Your task to perform on an android device: toggle priority inbox in the gmail app Image 0: 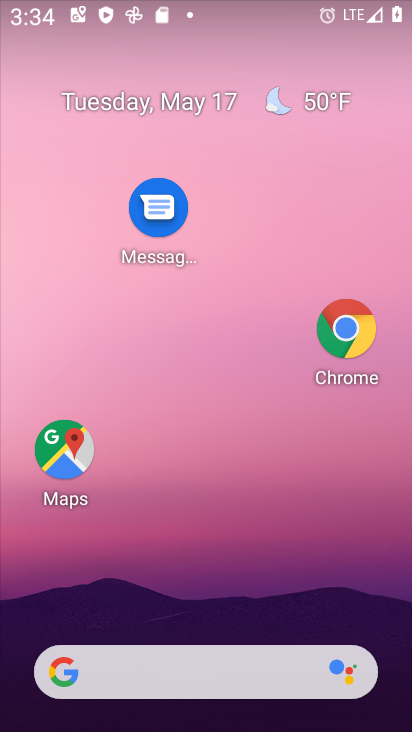
Step 0: drag from (245, 541) to (341, 10)
Your task to perform on an android device: toggle priority inbox in the gmail app Image 1: 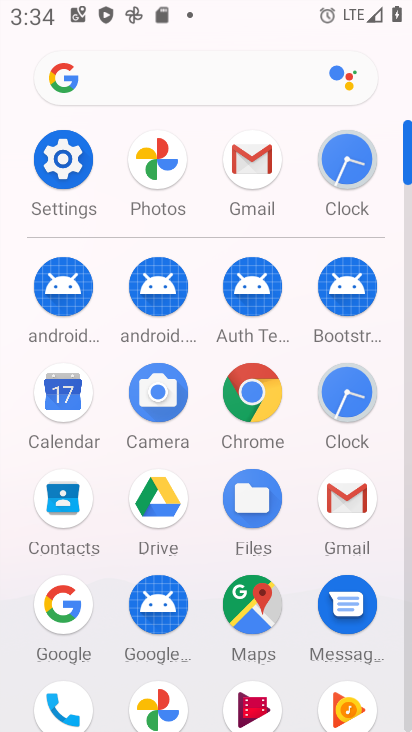
Step 1: click (255, 204)
Your task to perform on an android device: toggle priority inbox in the gmail app Image 2: 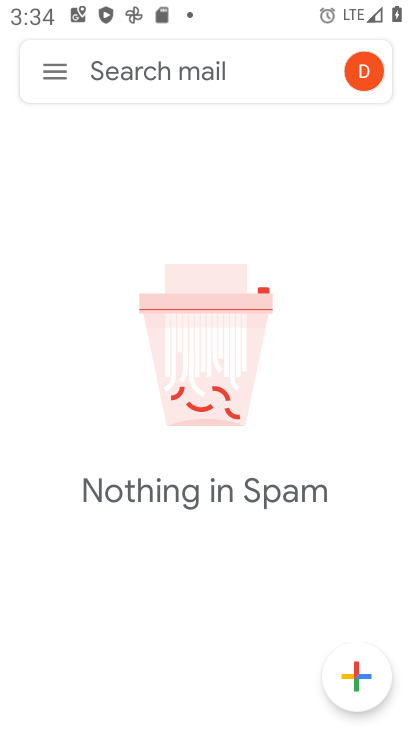
Step 2: click (62, 80)
Your task to perform on an android device: toggle priority inbox in the gmail app Image 3: 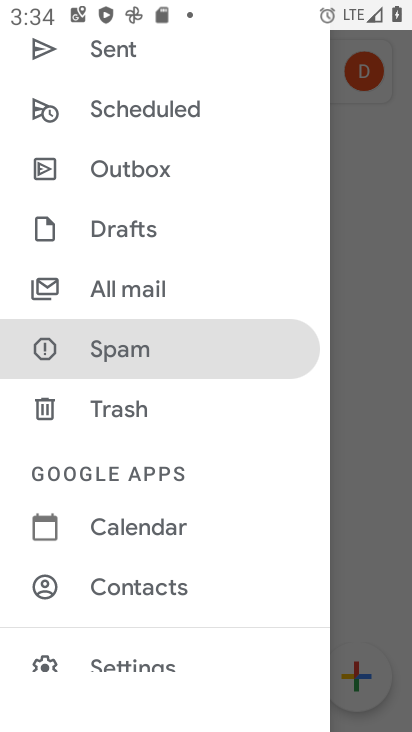
Step 3: drag from (144, 236) to (126, 535)
Your task to perform on an android device: toggle priority inbox in the gmail app Image 4: 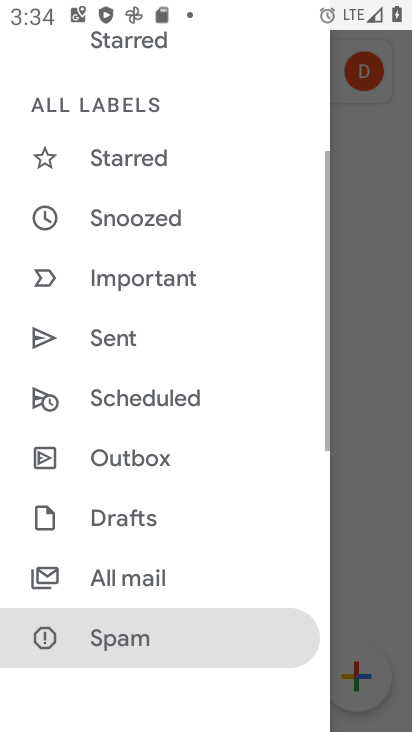
Step 4: drag from (126, 535) to (204, 167)
Your task to perform on an android device: toggle priority inbox in the gmail app Image 5: 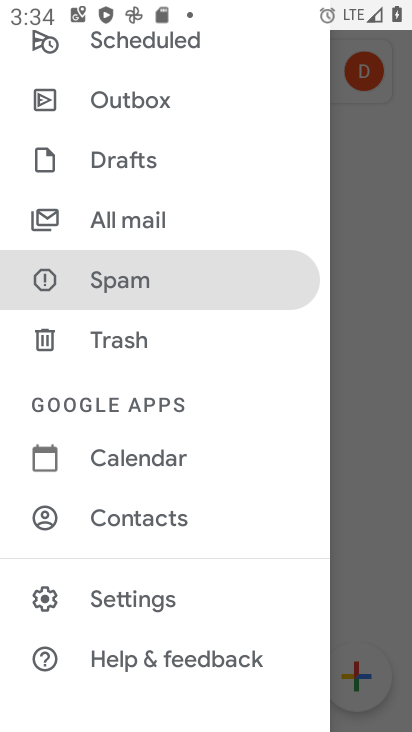
Step 5: click (126, 578)
Your task to perform on an android device: toggle priority inbox in the gmail app Image 6: 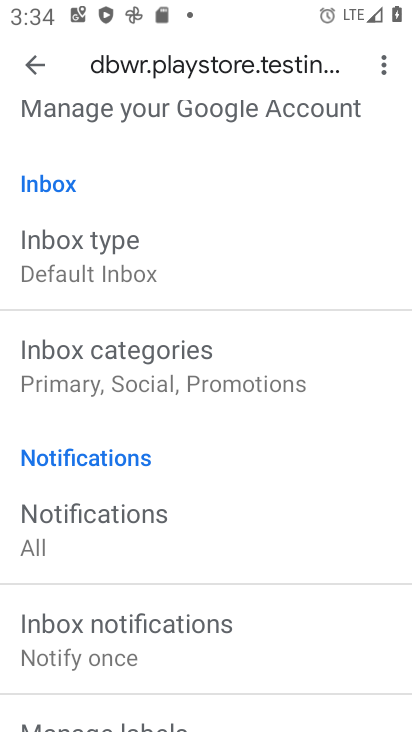
Step 6: click (156, 288)
Your task to perform on an android device: toggle priority inbox in the gmail app Image 7: 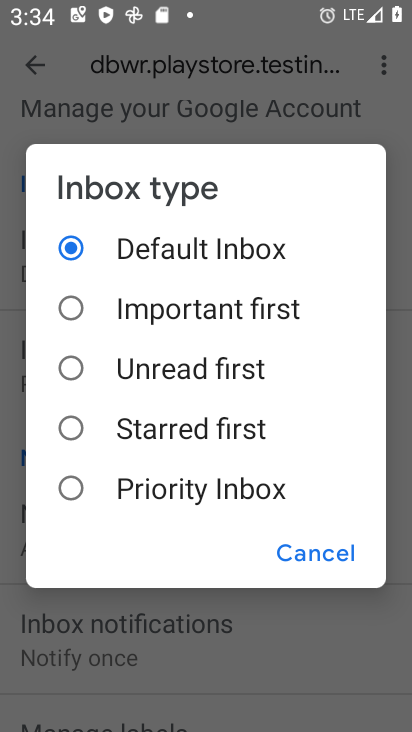
Step 7: click (180, 505)
Your task to perform on an android device: toggle priority inbox in the gmail app Image 8: 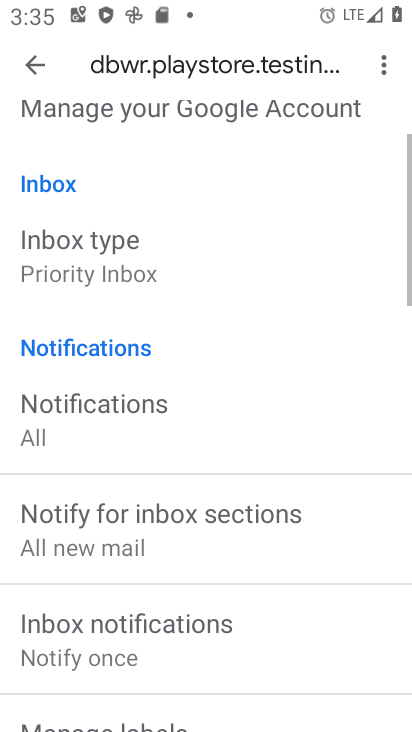
Step 8: task complete